Your task to perform on an android device: Show me the alarms in the clock app Image 0: 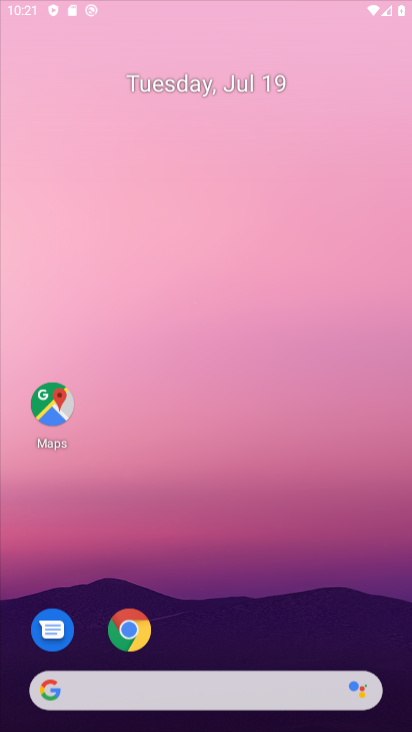
Step 0: click (194, 247)
Your task to perform on an android device: Show me the alarms in the clock app Image 1: 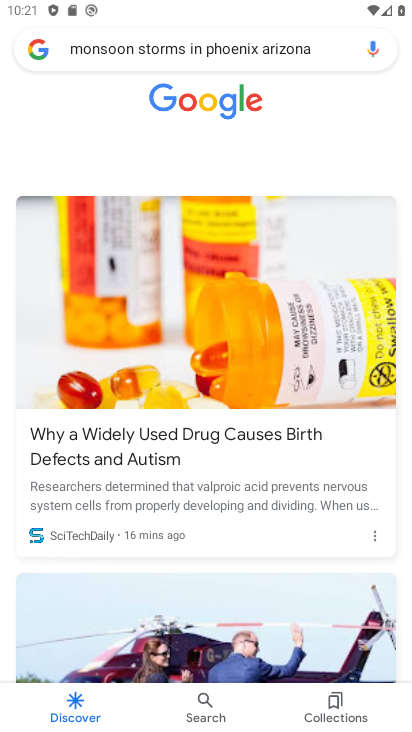
Step 1: press home button
Your task to perform on an android device: Show me the alarms in the clock app Image 2: 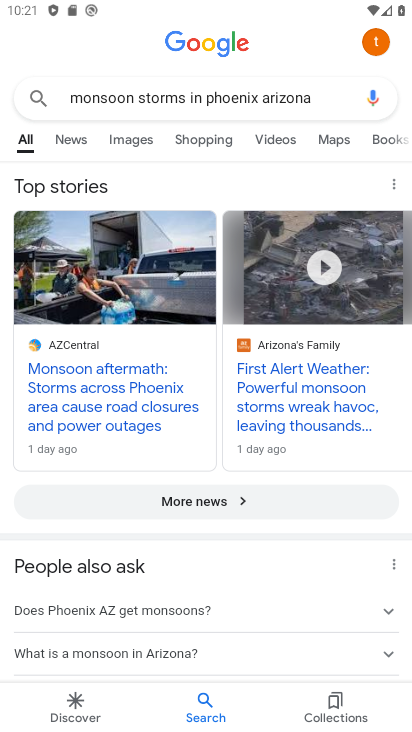
Step 2: press home button
Your task to perform on an android device: Show me the alarms in the clock app Image 3: 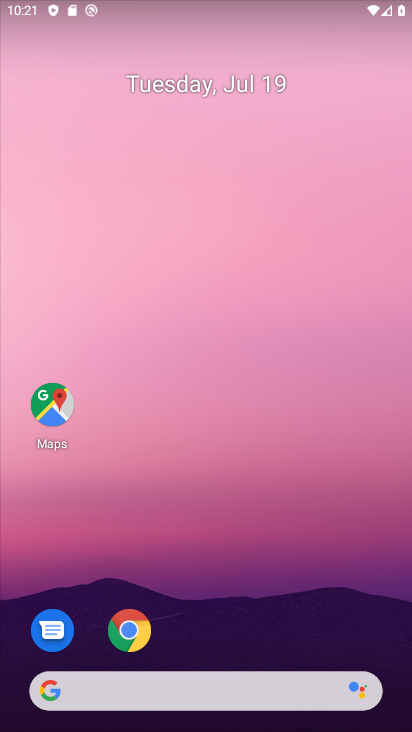
Step 3: drag from (138, 667) to (209, 118)
Your task to perform on an android device: Show me the alarms in the clock app Image 4: 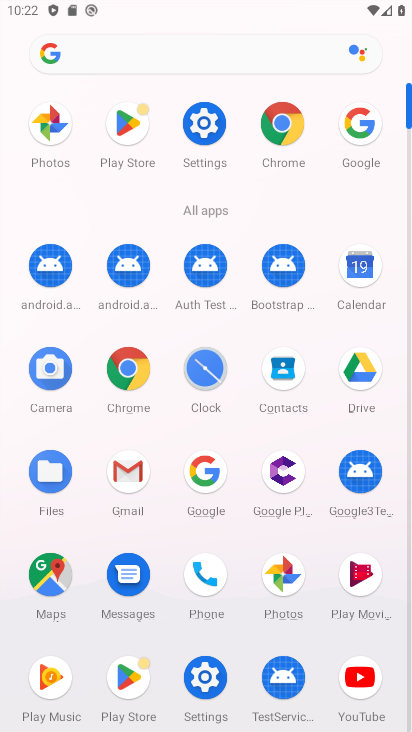
Step 4: click (206, 370)
Your task to perform on an android device: Show me the alarms in the clock app Image 5: 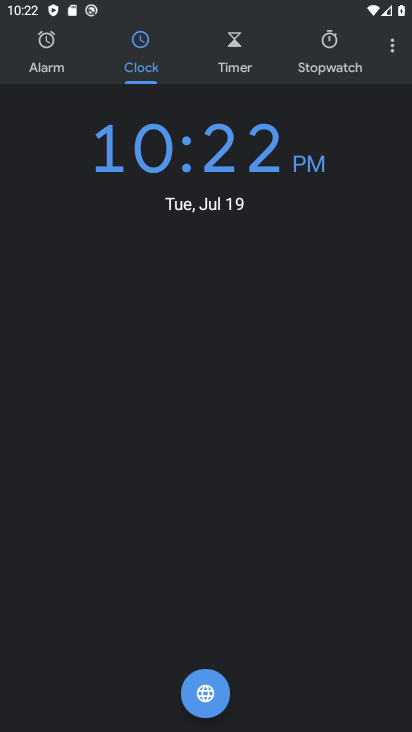
Step 5: click (45, 61)
Your task to perform on an android device: Show me the alarms in the clock app Image 6: 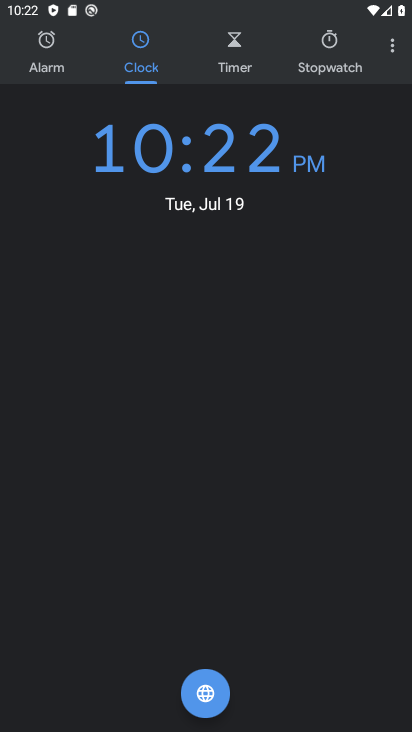
Step 6: click (48, 78)
Your task to perform on an android device: Show me the alarms in the clock app Image 7: 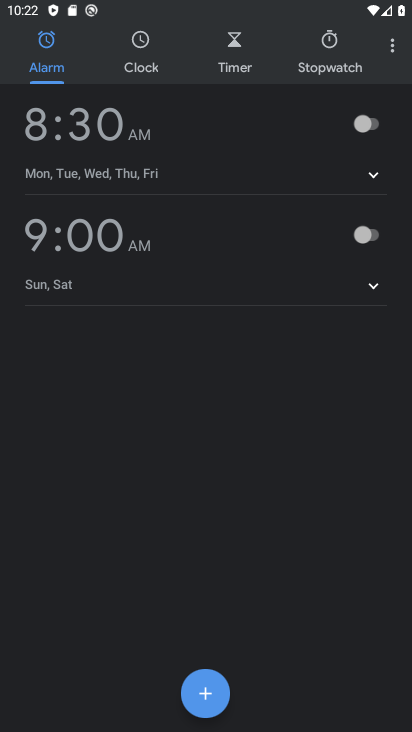
Step 7: task complete